Your task to perform on an android device: visit the assistant section in the google photos Image 0: 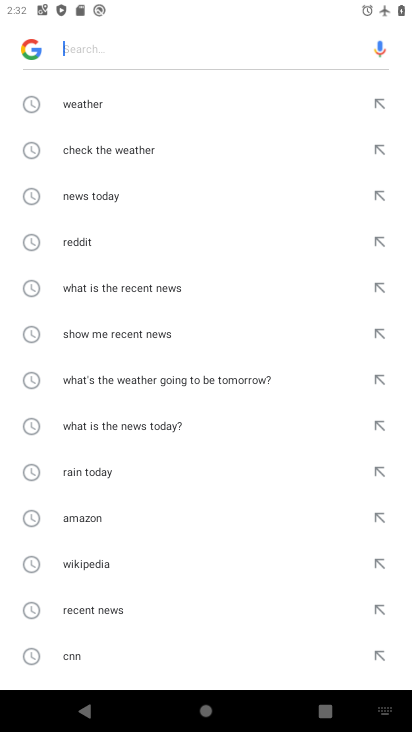
Step 0: press home button
Your task to perform on an android device: visit the assistant section in the google photos Image 1: 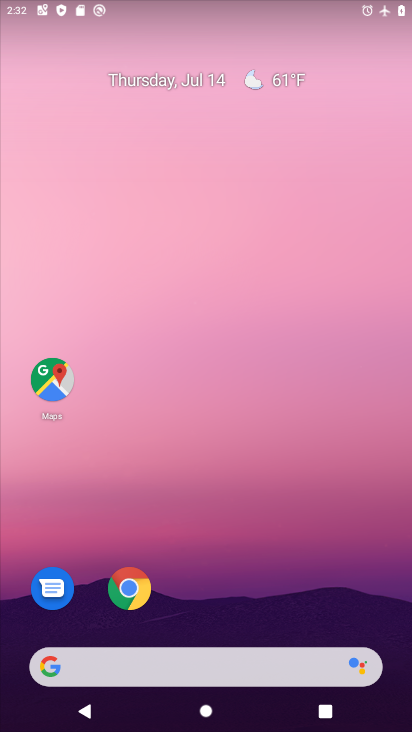
Step 1: drag from (258, 588) to (228, 42)
Your task to perform on an android device: visit the assistant section in the google photos Image 2: 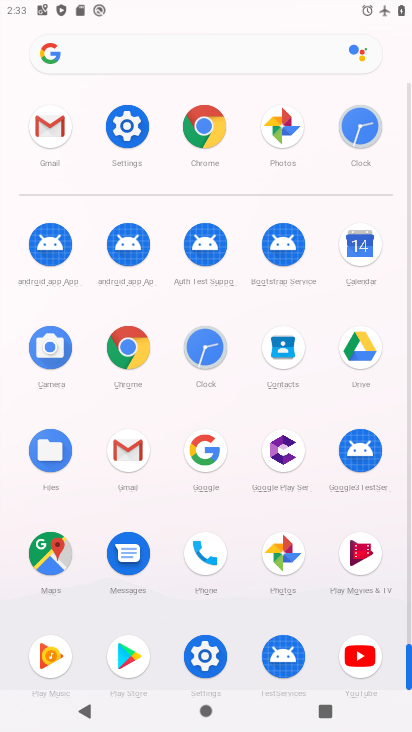
Step 2: click (275, 539)
Your task to perform on an android device: visit the assistant section in the google photos Image 3: 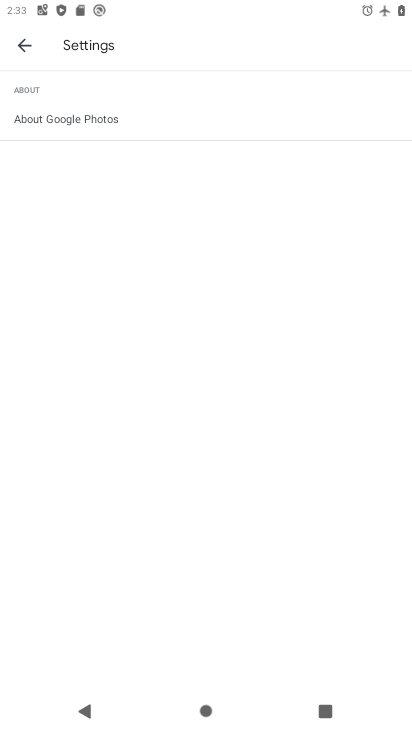
Step 3: click (33, 38)
Your task to perform on an android device: visit the assistant section in the google photos Image 4: 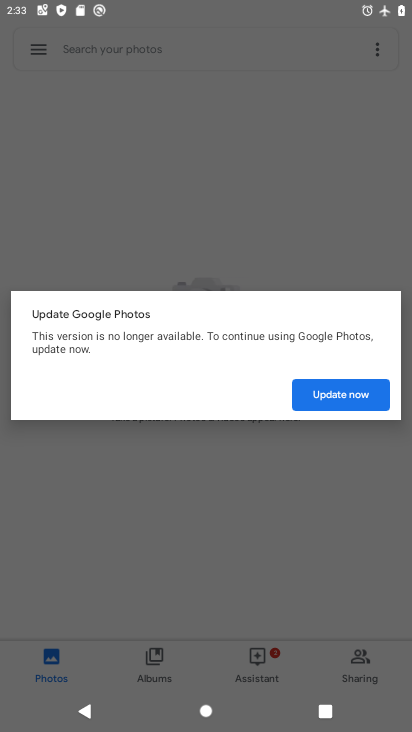
Step 4: click (320, 387)
Your task to perform on an android device: visit the assistant section in the google photos Image 5: 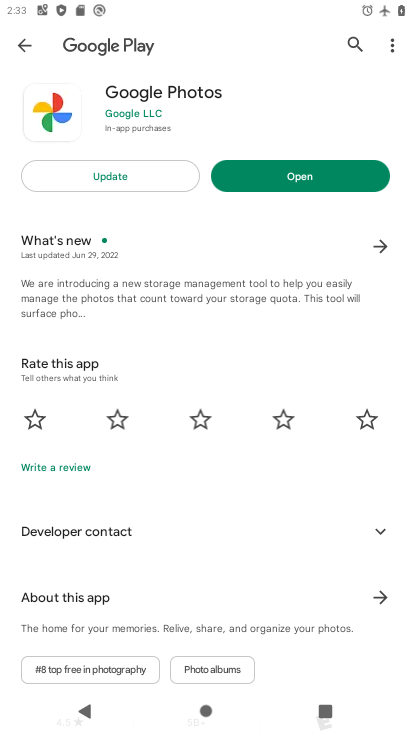
Step 5: press back button
Your task to perform on an android device: visit the assistant section in the google photos Image 6: 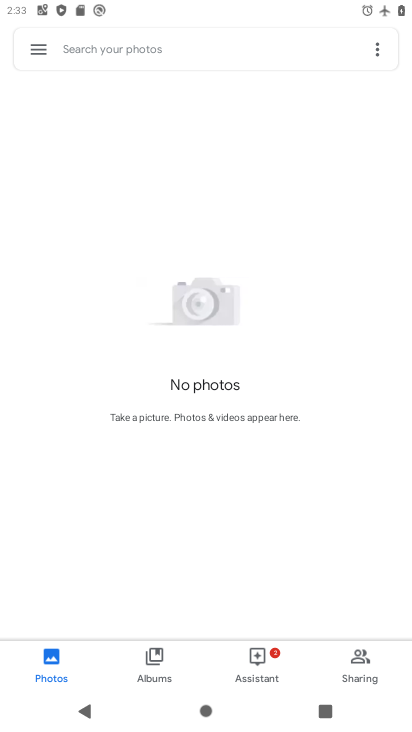
Step 6: click (241, 680)
Your task to perform on an android device: visit the assistant section in the google photos Image 7: 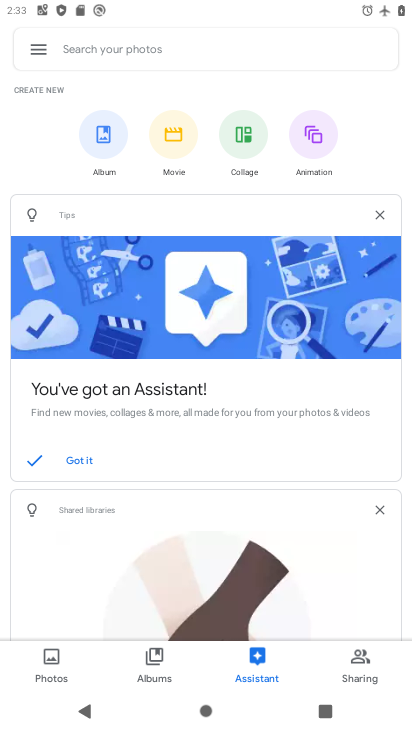
Step 7: click (273, 653)
Your task to perform on an android device: visit the assistant section in the google photos Image 8: 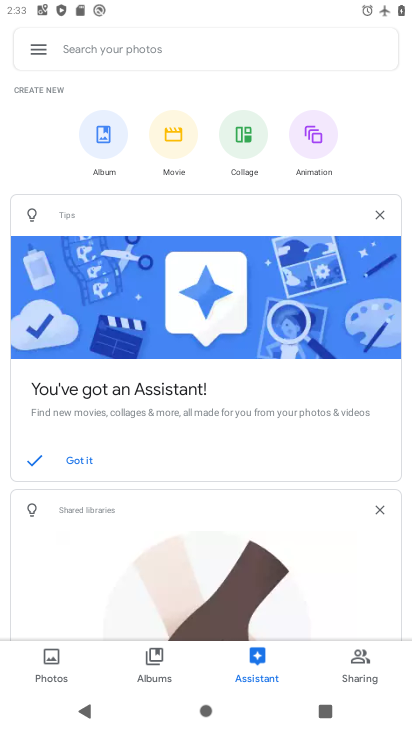
Step 8: task complete